Your task to perform on an android device: Go to Google Image 0: 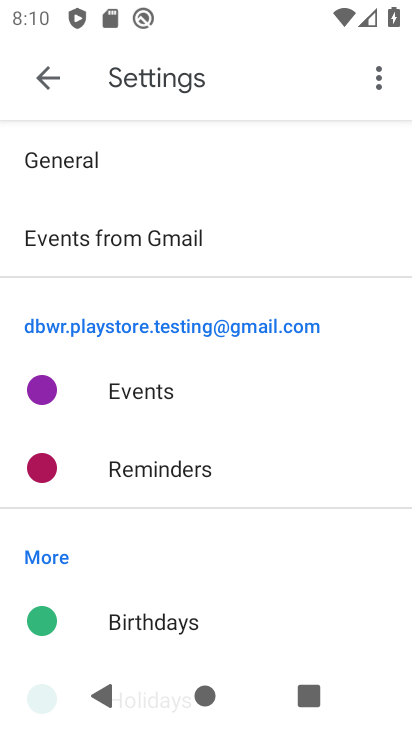
Step 0: press home button
Your task to perform on an android device: Go to Google Image 1: 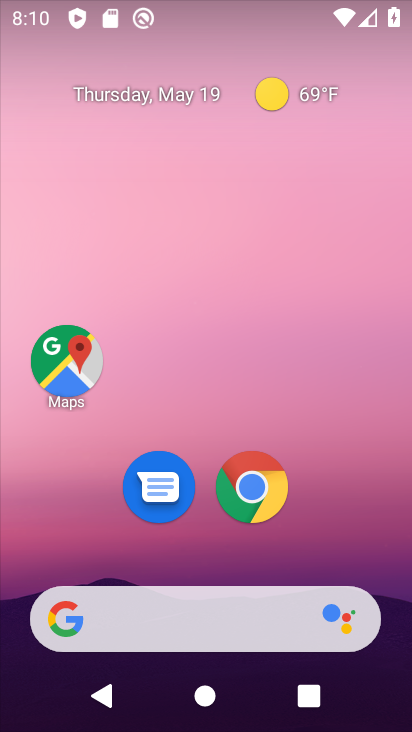
Step 1: click (186, 608)
Your task to perform on an android device: Go to Google Image 2: 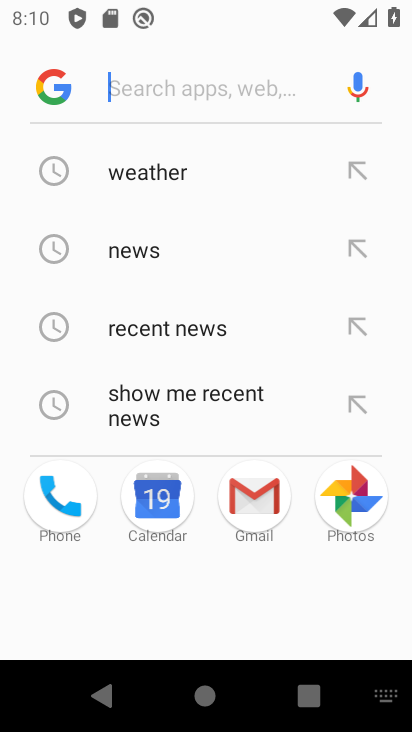
Step 2: task complete